Your task to perform on an android device: Search for acer predator on target.com, select the first entry, and add it to the cart. Image 0: 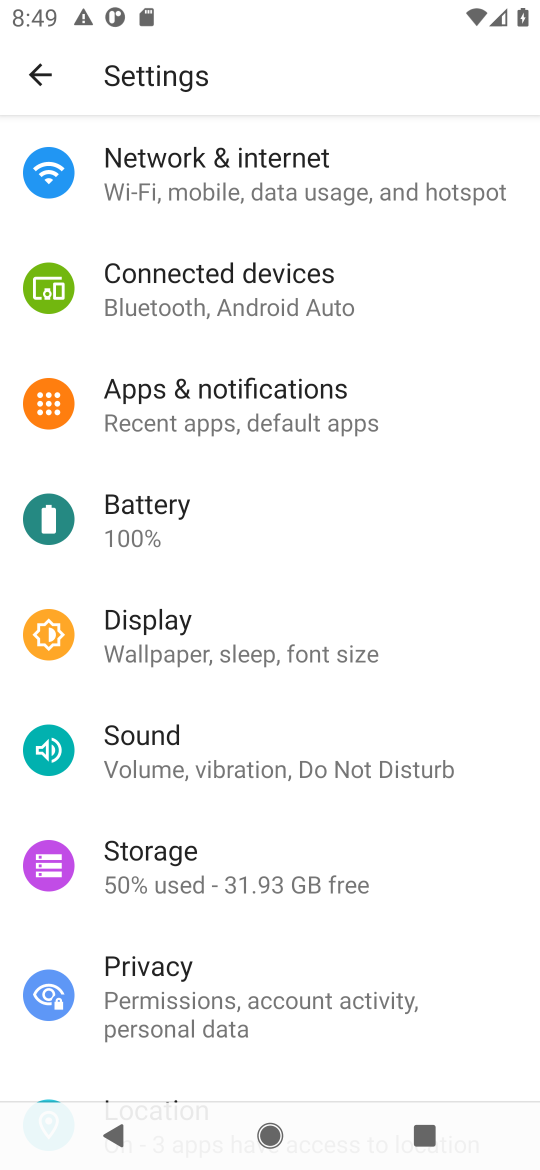
Step 0: press home button
Your task to perform on an android device: Search for acer predator on target.com, select the first entry, and add it to the cart. Image 1: 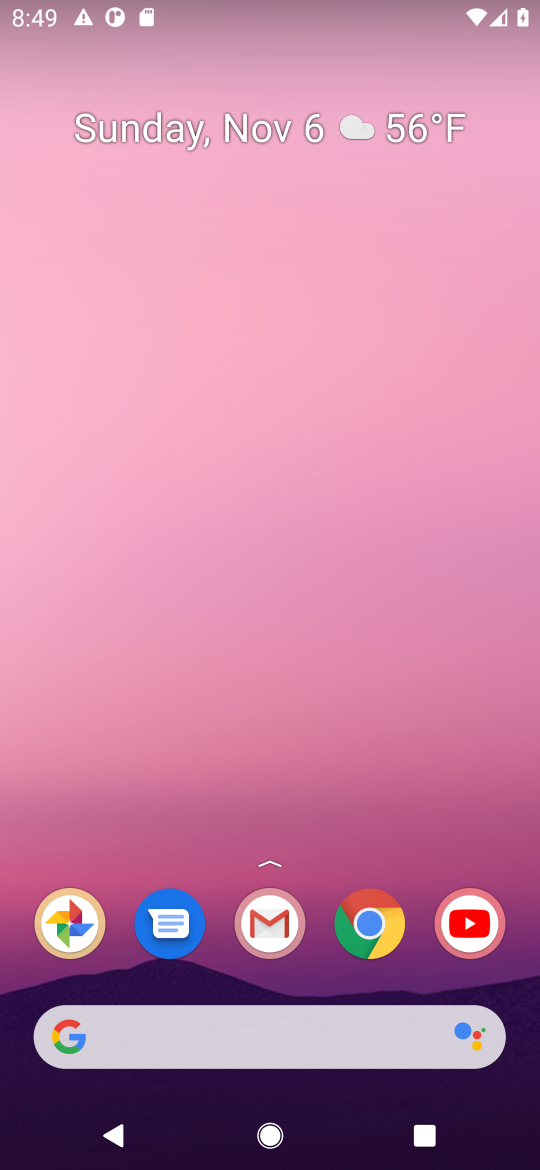
Step 1: click (358, 922)
Your task to perform on an android device: Search for acer predator on target.com, select the first entry, and add it to the cart. Image 2: 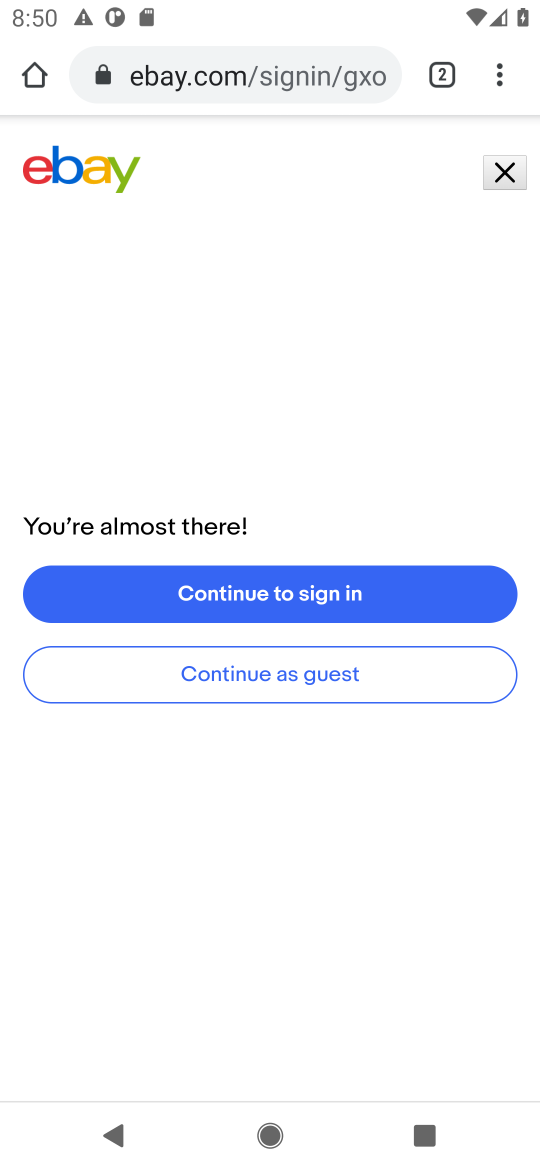
Step 2: click (240, 90)
Your task to perform on an android device: Search for acer predator on target.com, select the first entry, and add it to the cart. Image 3: 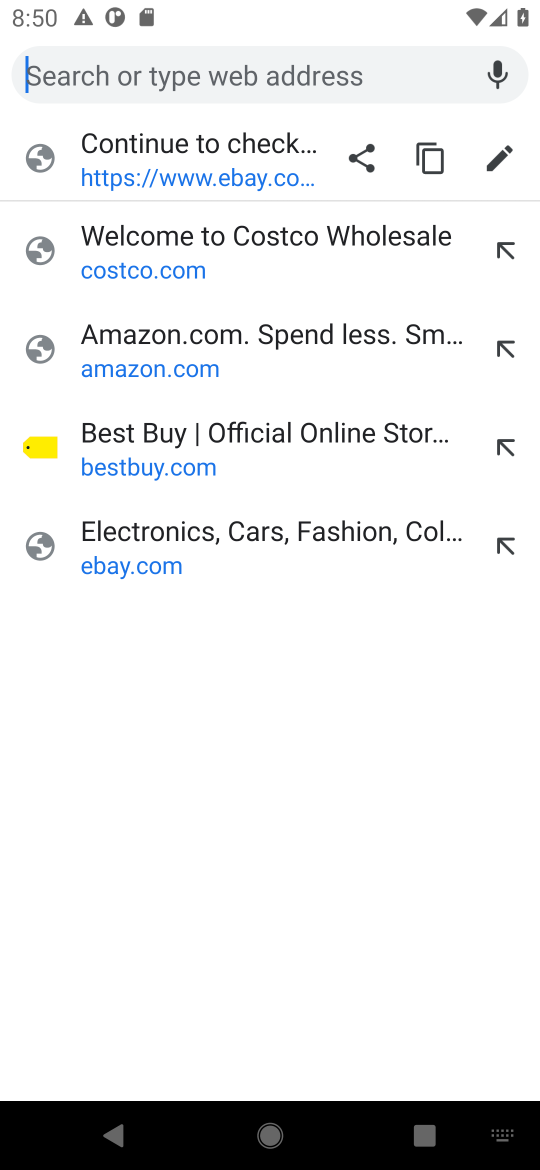
Step 3: type "target.com"
Your task to perform on an android device: Search for acer predator on target.com, select the first entry, and add it to the cart. Image 4: 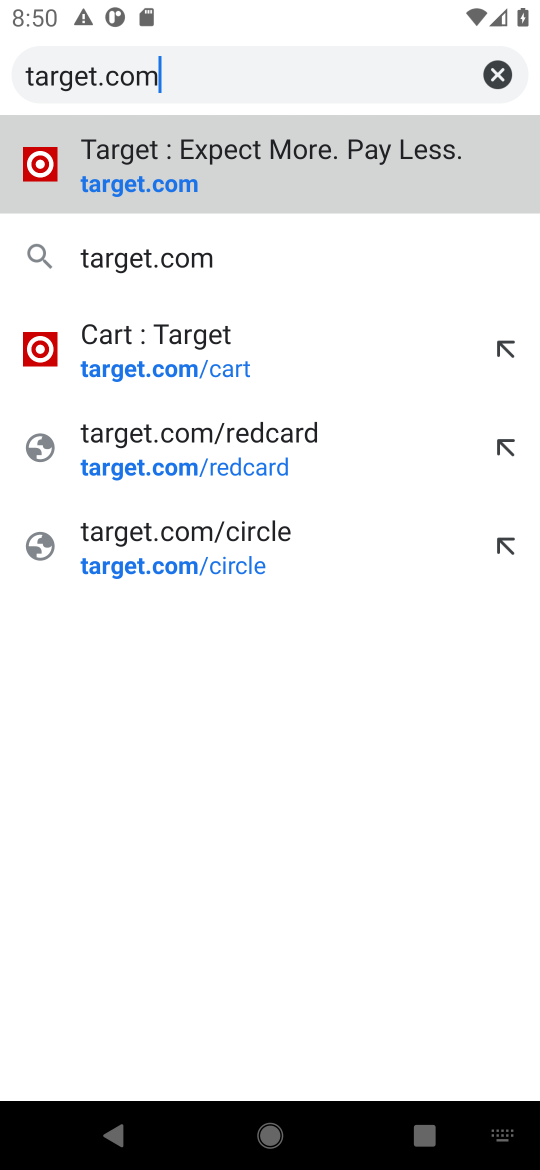
Step 4: click (118, 187)
Your task to perform on an android device: Search for acer predator on target.com, select the first entry, and add it to the cart. Image 5: 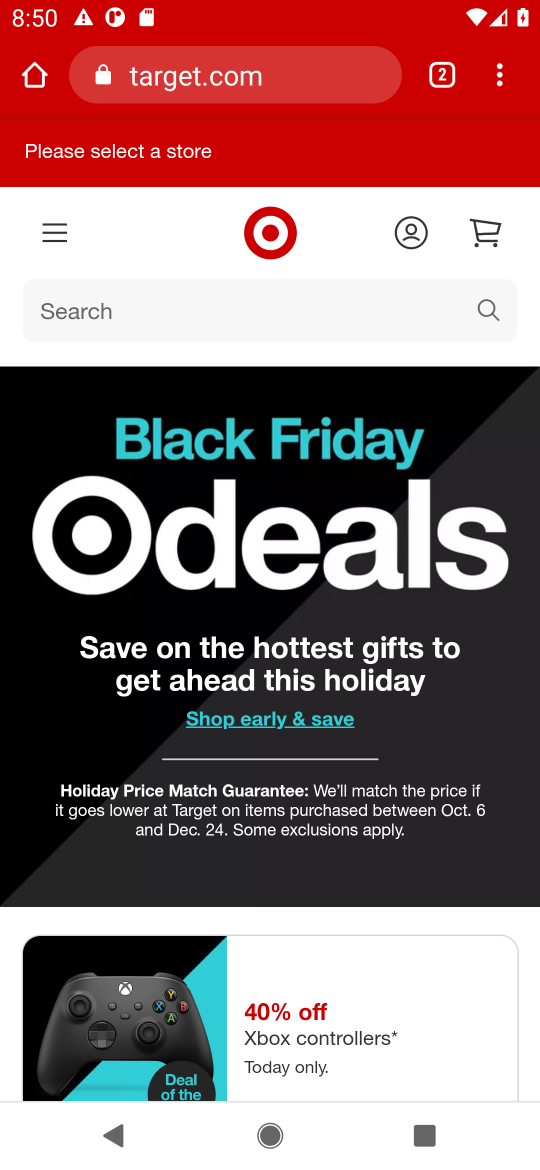
Step 5: click (487, 309)
Your task to perform on an android device: Search for acer predator on target.com, select the first entry, and add it to the cart. Image 6: 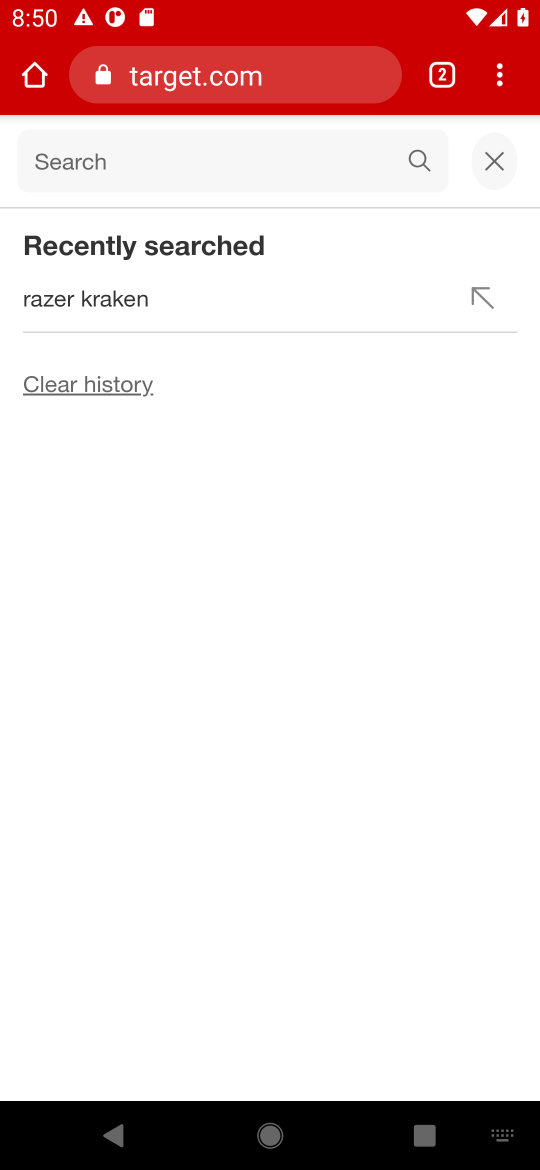
Step 6: type "acer predator"
Your task to perform on an android device: Search for acer predator on target.com, select the first entry, and add it to the cart. Image 7: 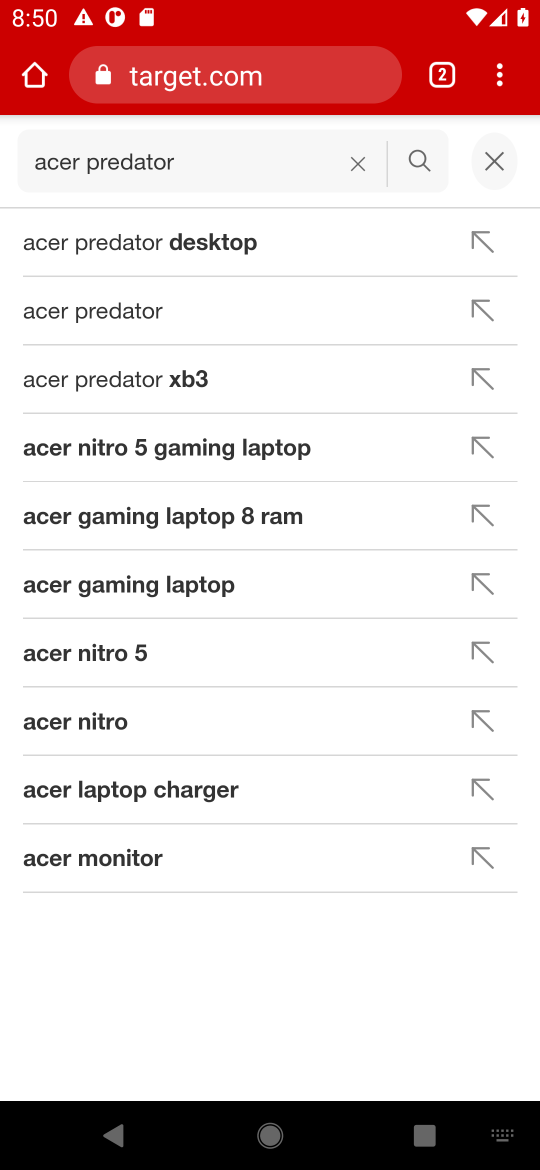
Step 7: click (138, 308)
Your task to perform on an android device: Search for acer predator on target.com, select the first entry, and add it to the cart. Image 8: 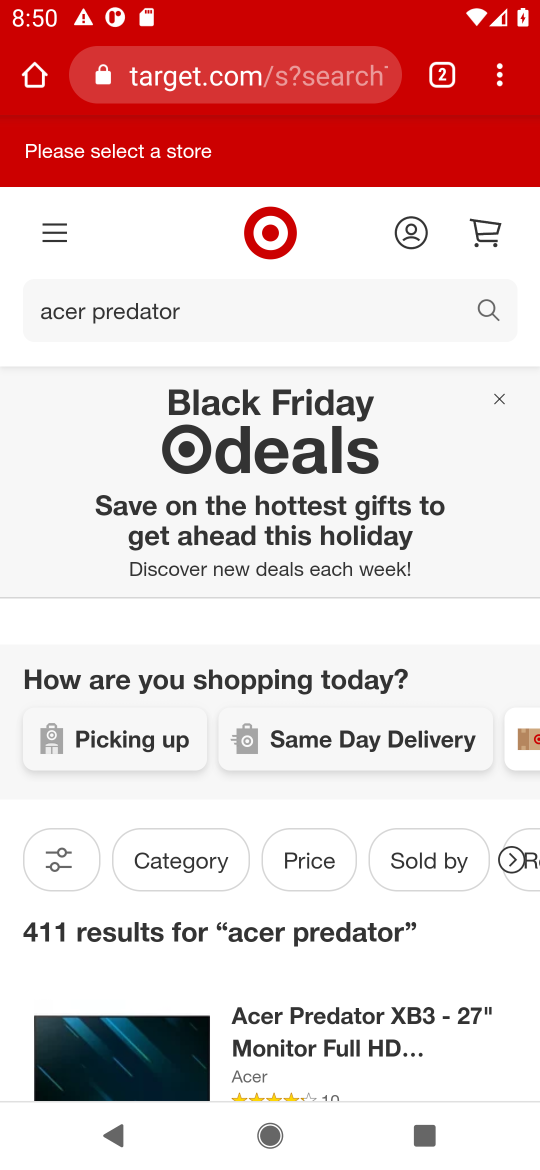
Step 8: drag from (226, 834) to (219, 407)
Your task to perform on an android device: Search for acer predator on target.com, select the first entry, and add it to the cart. Image 9: 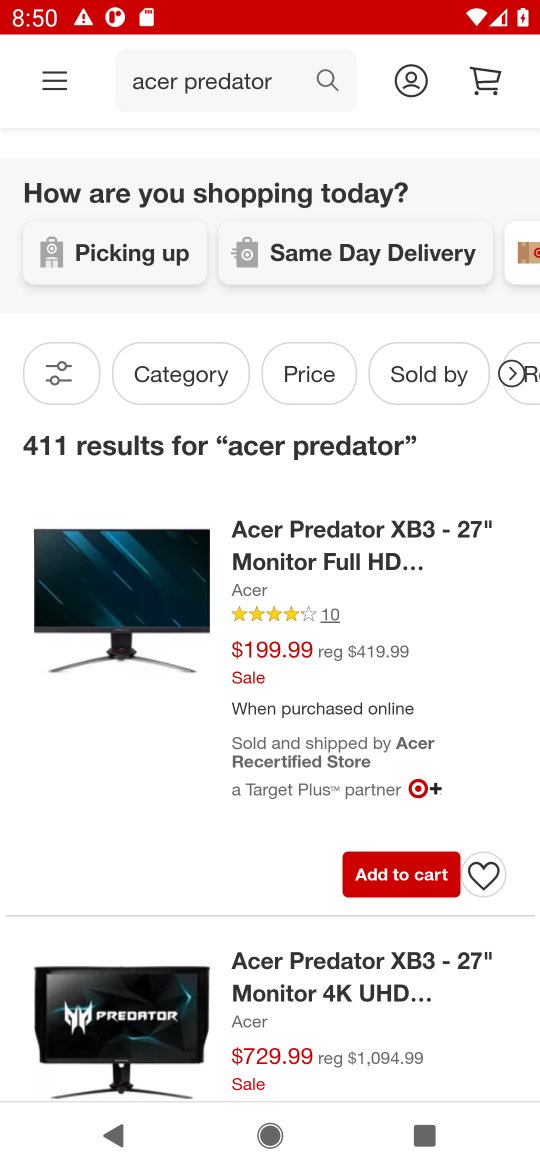
Step 9: click (411, 883)
Your task to perform on an android device: Search for acer predator on target.com, select the first entry, and add it to the cart. Image 10: 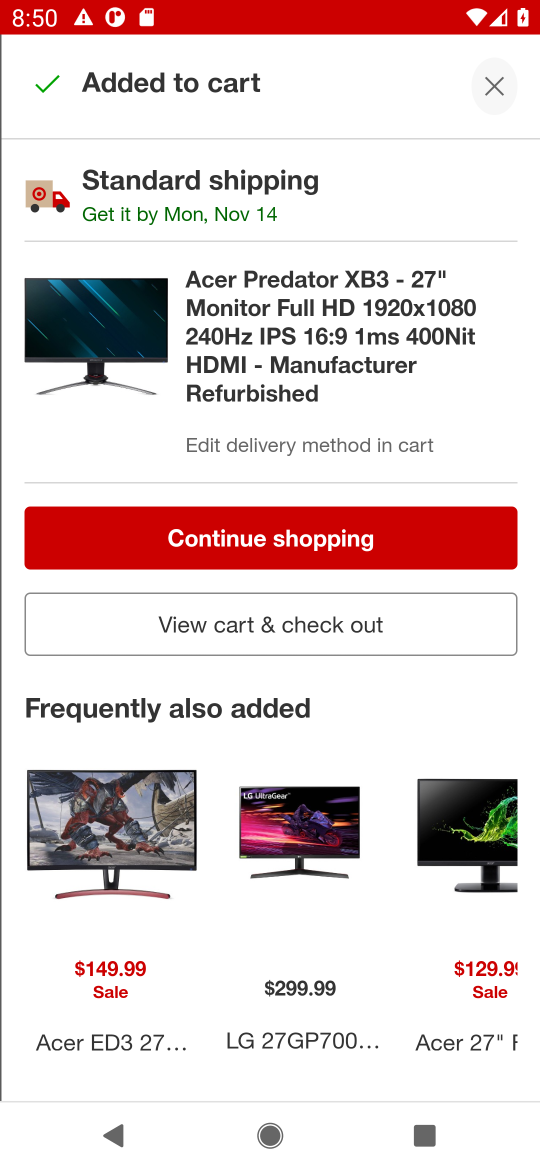
Step 10: task complete